Your task to perform on an android device: toggle airplane mode Image 0: 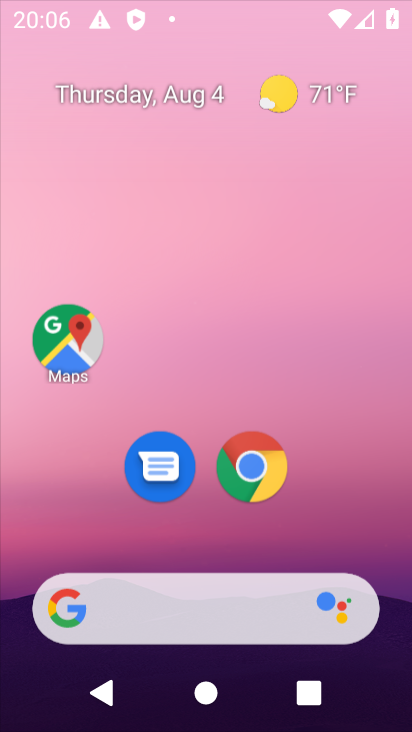
Step 0: press home button
Your task to perform on an android device: toggle airplane mode Image 1: 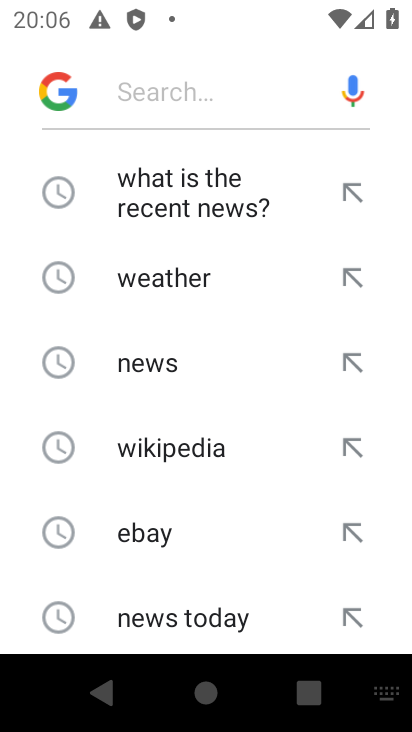
Step 1: click (359, 99)
Your task to perform on an android device: toggle airplane mode Image 2: 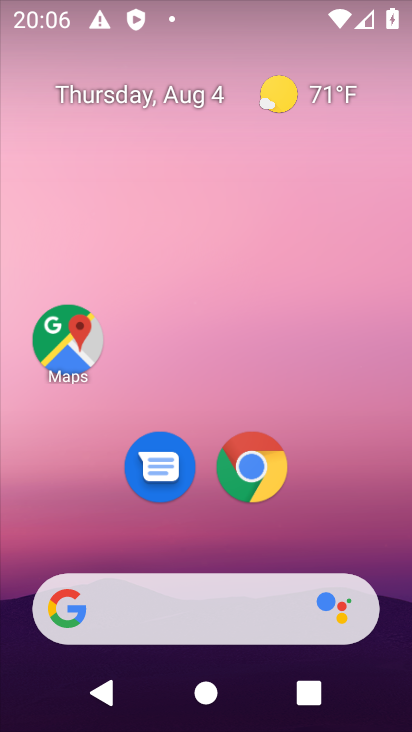
Step 2: drag from (380, 5) to (311, 697)
Your task to perform on an android device: toggle airplane mode Image 3: 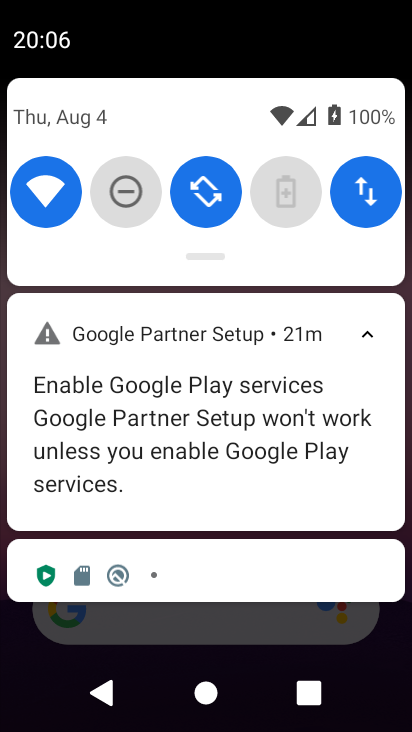
Step 3: drag from (210, 248) to (265, 731)
Your task to perform on an android device: toggle airplane mode Image 4: 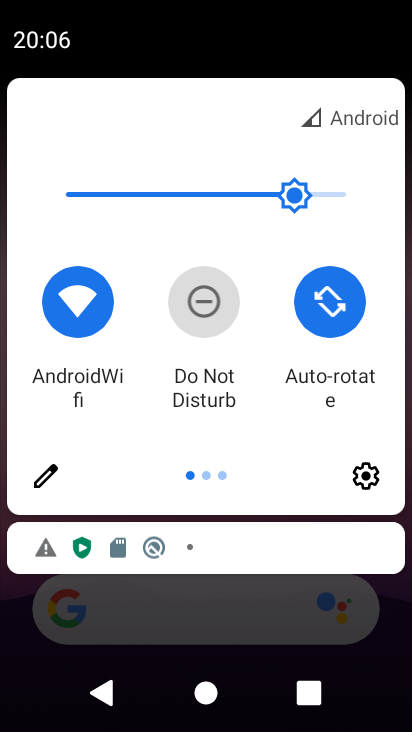
Step 4: drag from (389, 356) to (27, 474)
Your task to perform on an android device: toggle airplane mode Image 5: 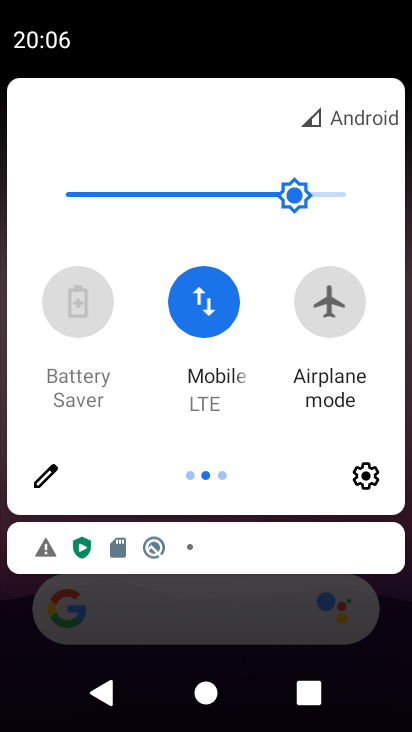
Step 5: click (331, 299)
Your task to perform on an android device: toggle airplane mode Image 6: 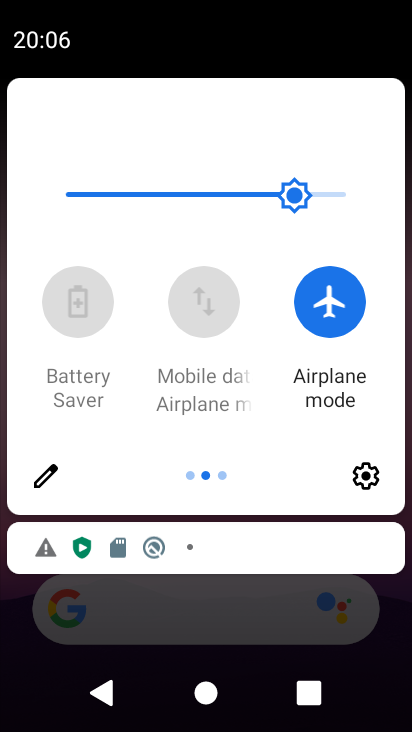
Step 6: task complete